Your task to perform on an android device: all mails in gmail Image 0: 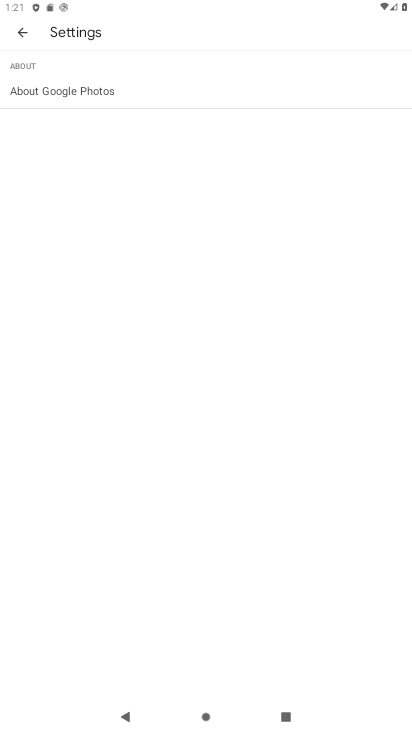
Step 0: press home button
Your task to perform on an android device: all mails in gmail Image 1: 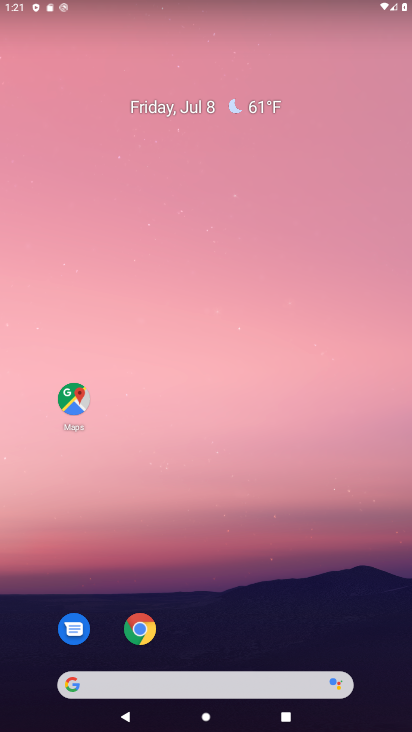
Step 1: drag from (145, 419) to (408, 206)
Your task to perform on an android device: all mails in gmail Image 2: 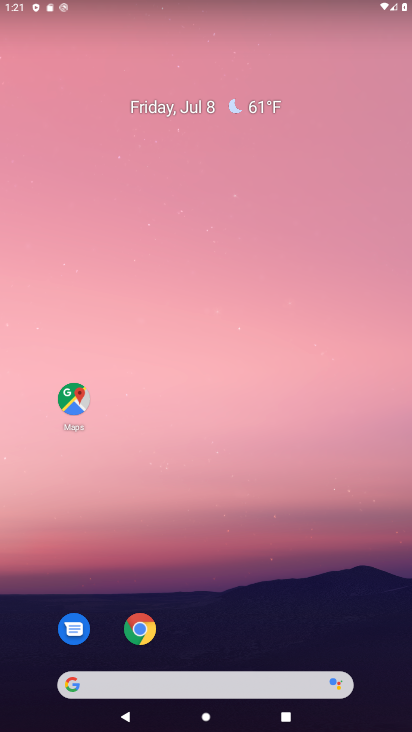
Step 2: drag from (238, 519) to (243, 178)
Your task to perform on an android device: all mails in gmail Image 3: 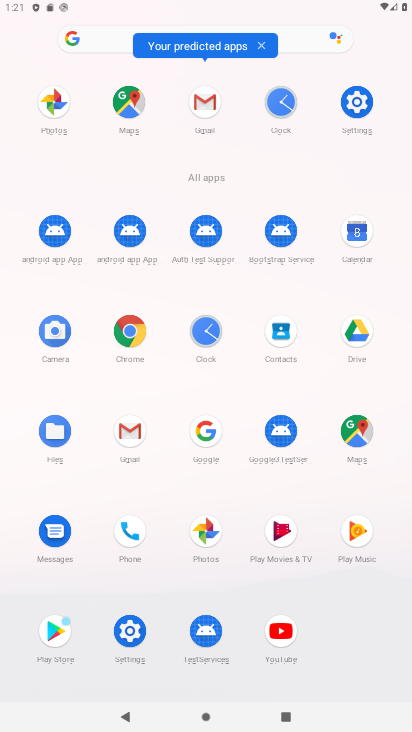
Step 3: click (220, 111)
Your task to perform on an android device: all mails in gmail Image 4: 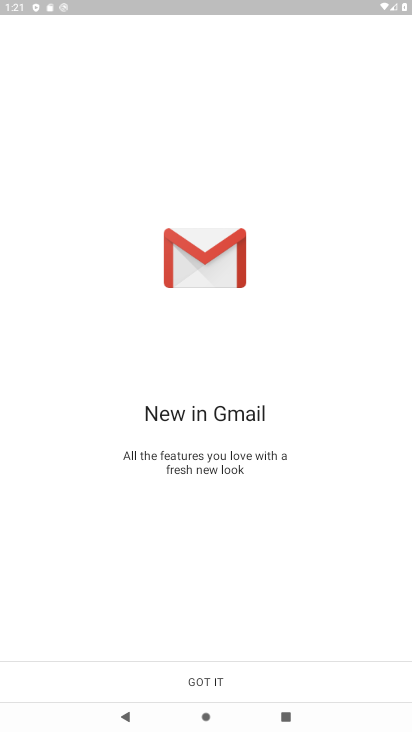
Step 4: click (218, 686)
Your task to perform on an android device: all mails in gmail Image 5: 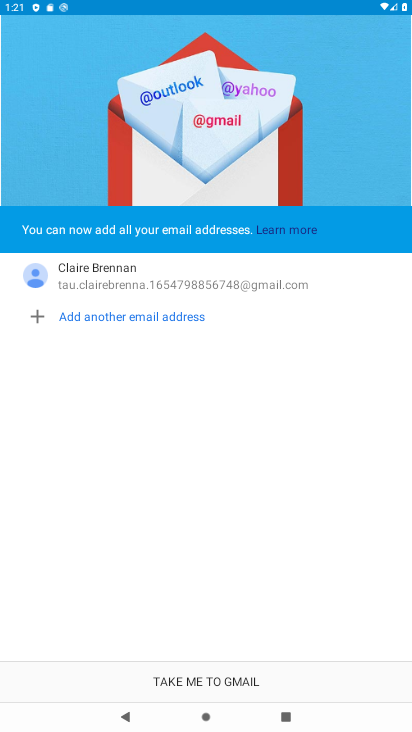
Step 5: click (224, 670)
Your task to perform on an android device: all mails in gmail Image 6: 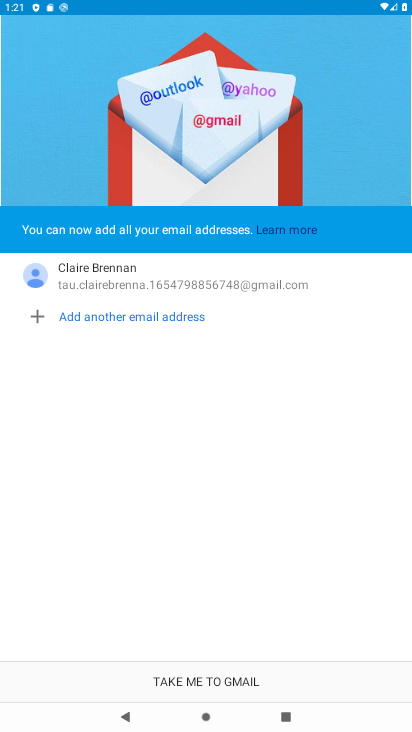
Step 6: click (226, 665)
Your task to perform on an android device: all mails in gmail Image 7: 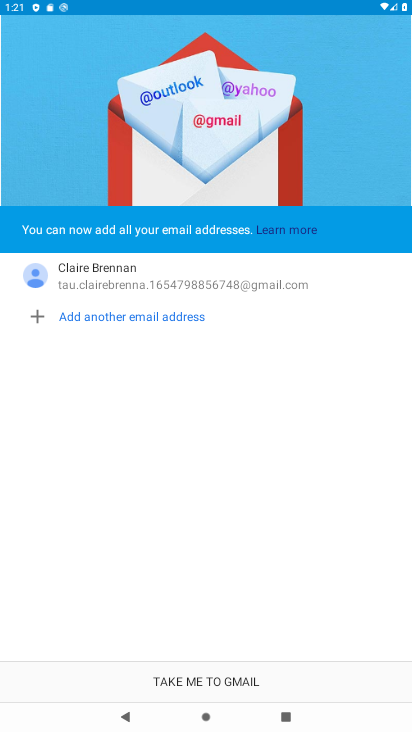
Step 7: click (226, 676)
Your task to perform on an android device: all mails in gmail Image 8: 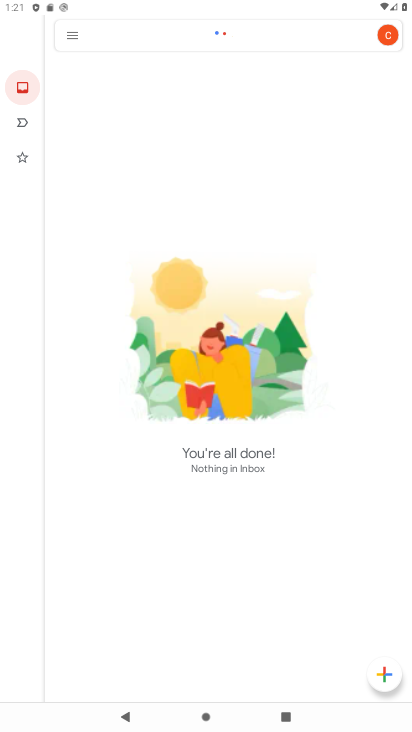
Step 8: click (67, 37)
Your task to perform on an android device: all mails in gmail Image 9: 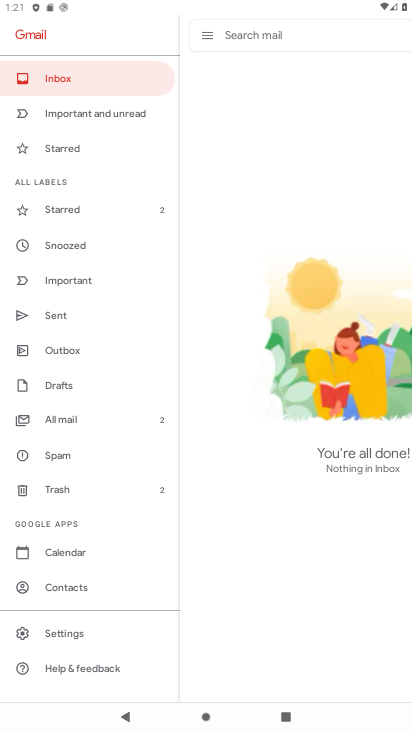
Step 9: click (42, 423)
Your task to perform on an android device: all mails in gmail Image 10: 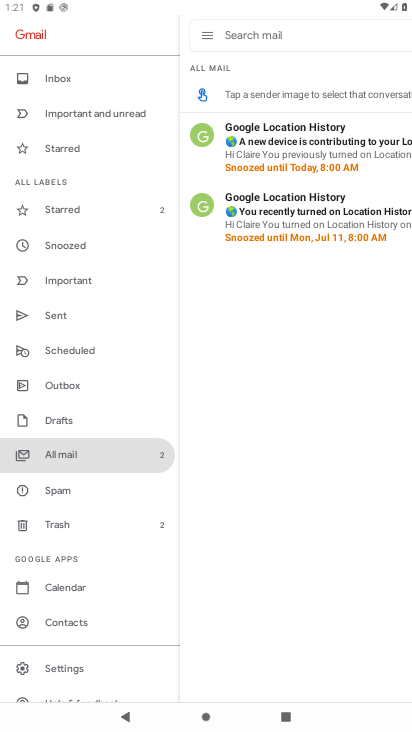
Step 10: click (293, 318)
Your task to perform on an android device: all mails in gmail Image 11: 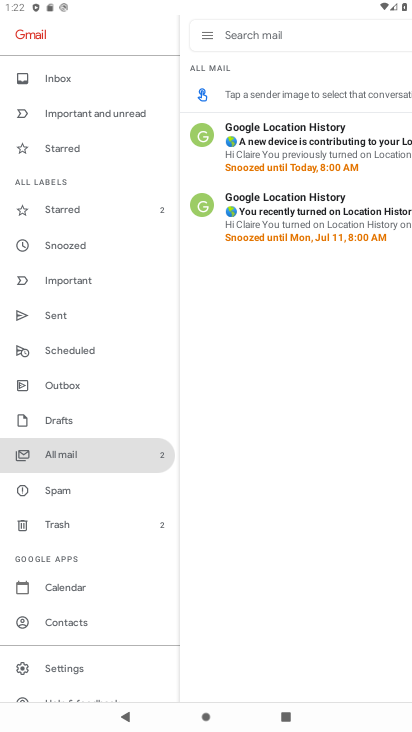
Step 11: task complete